Your task to perform on an android device: Open Amazon Image 0: 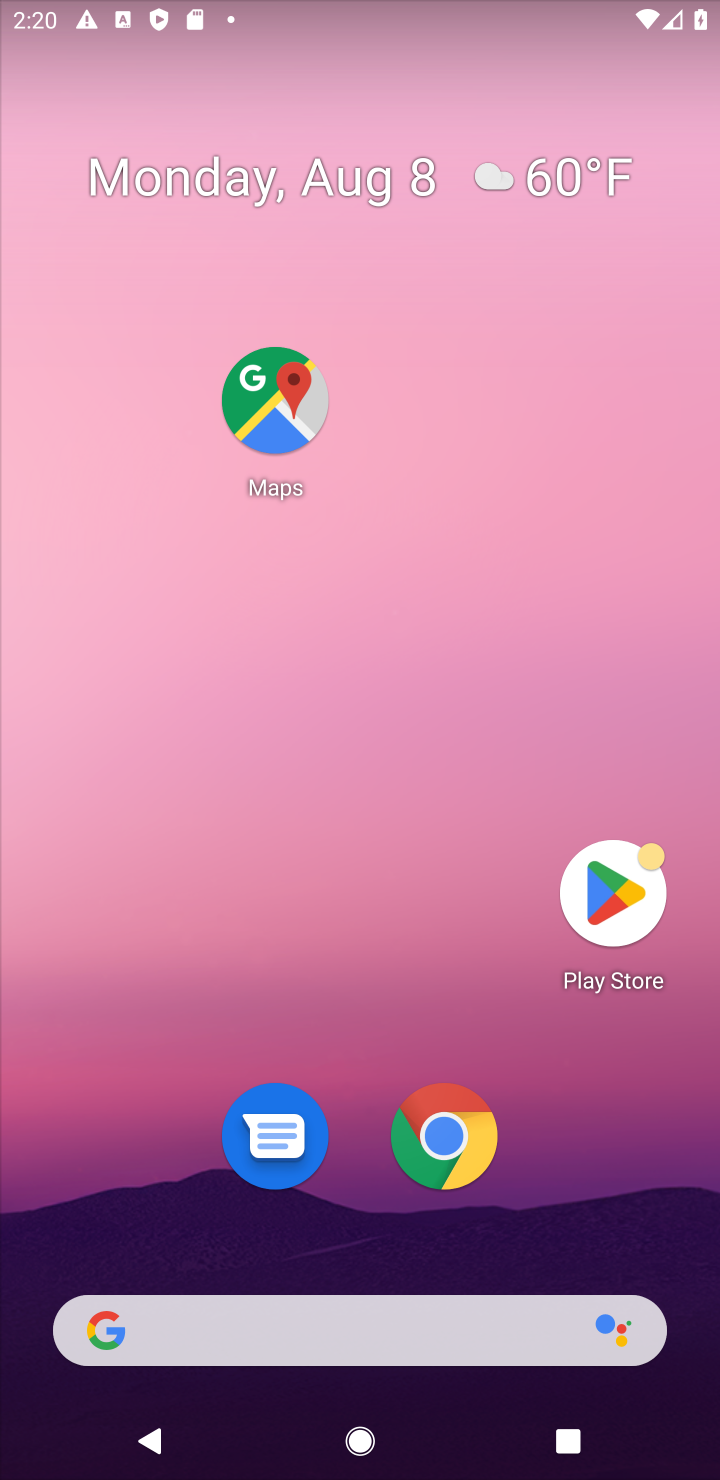
Step 0: click (170, 1339)
Your task to perform on an android device: Open Amazon Image 1: 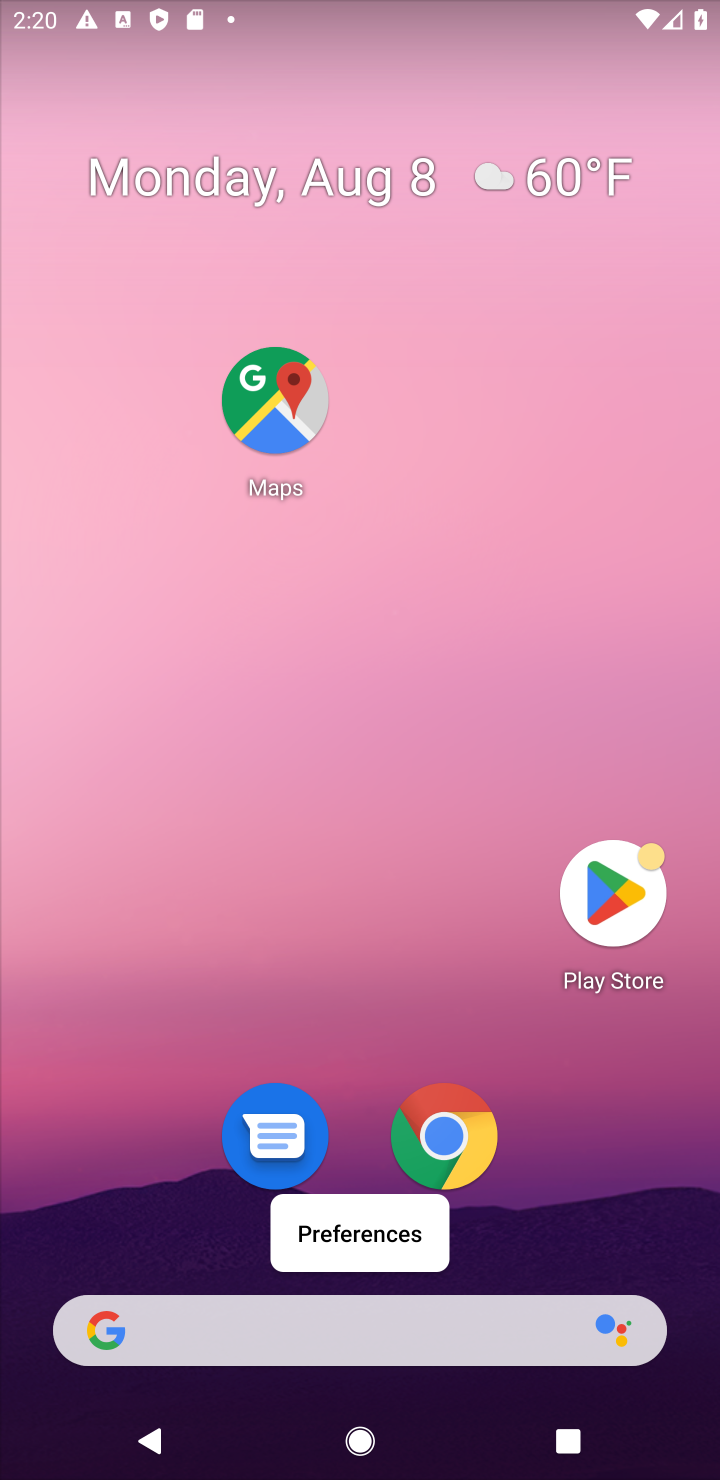
Step 1: click (170, 1339)
Your task to perform on an android device: Open Amazon Image 2: 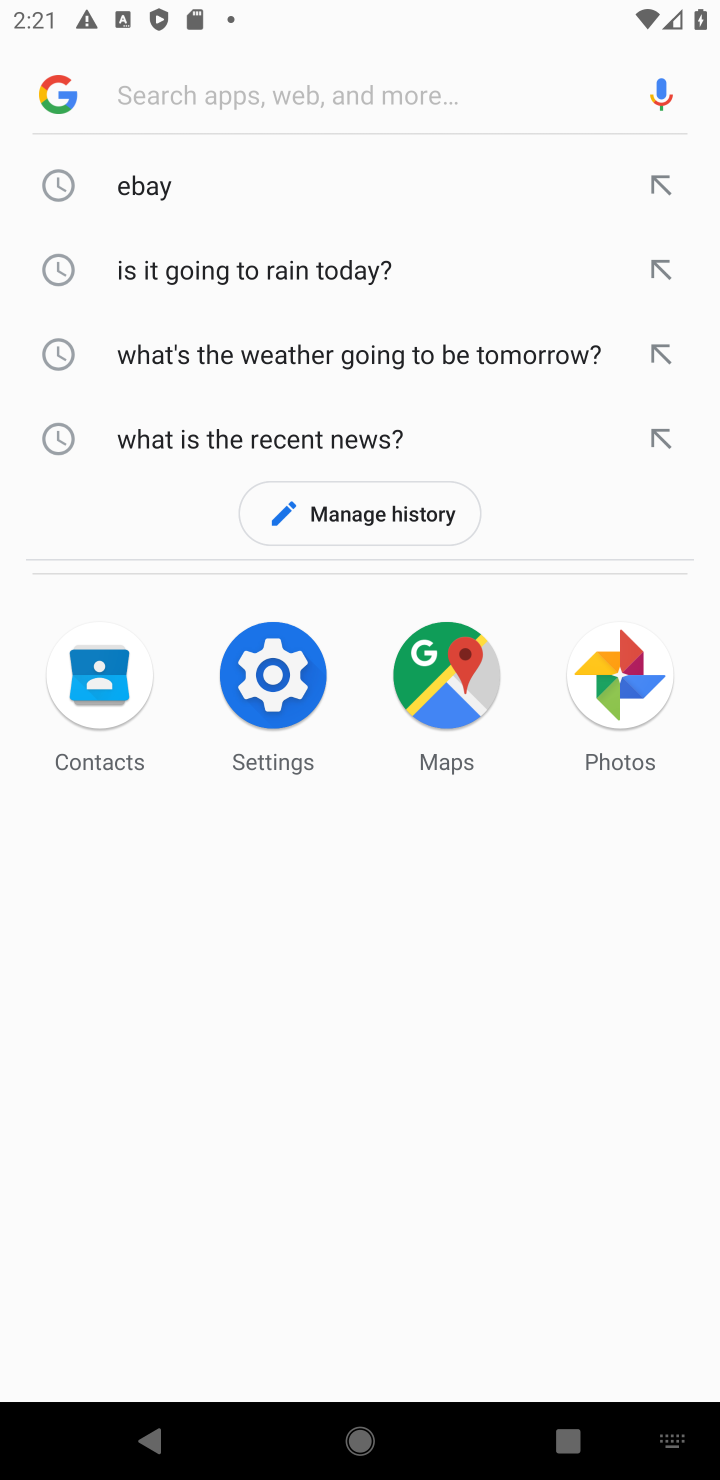
Step 2: type "Amazon"
Your task to perform on an android device: Open Amazon Image 3: 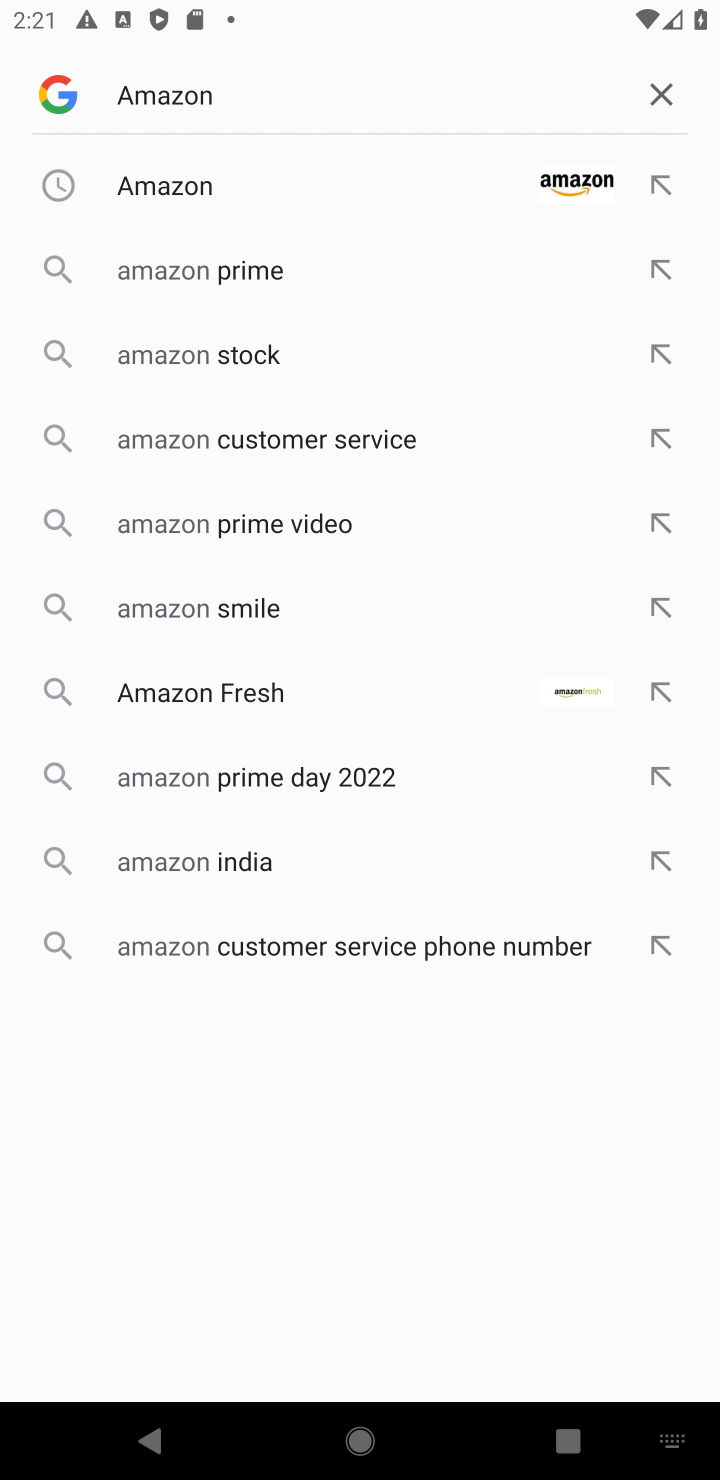
Step 3: click (163, 185)
Your task to perform on an android device: Open Amazon Image 4: 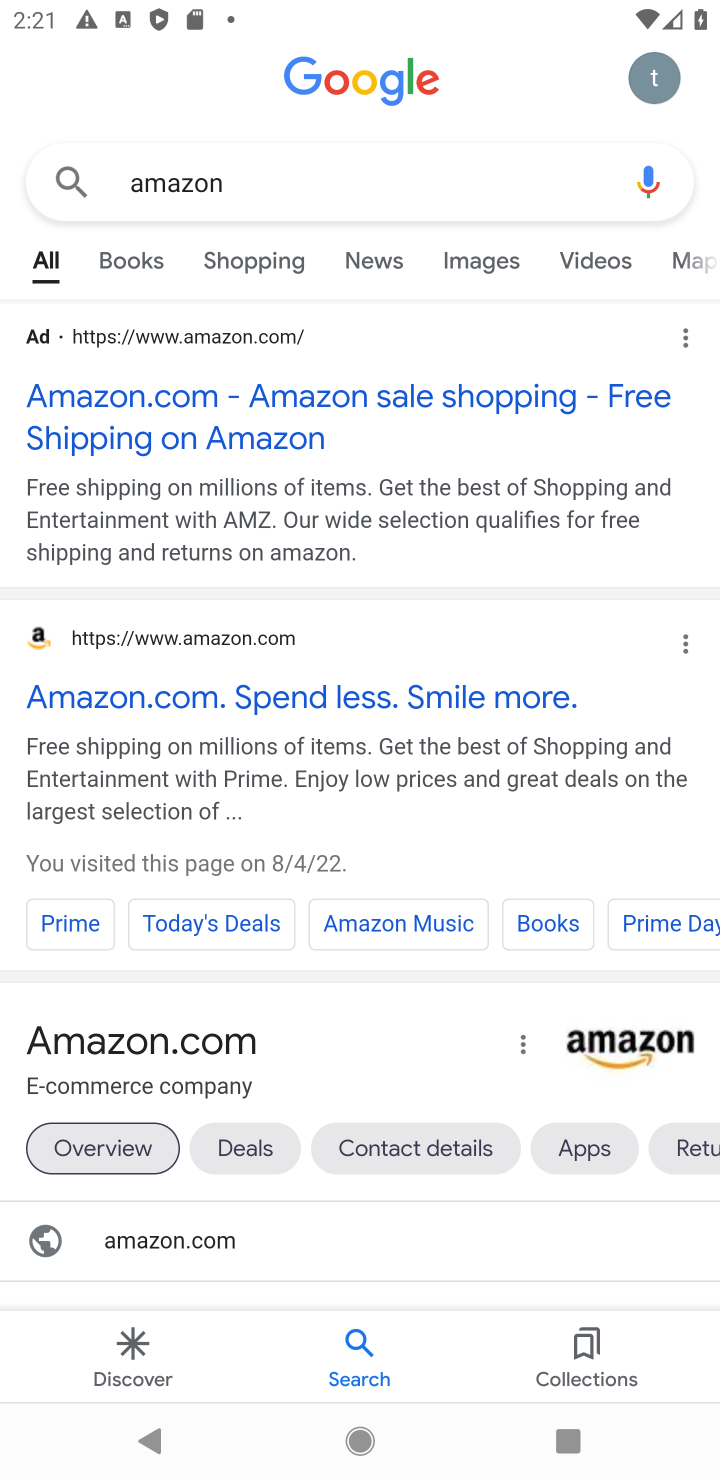
Step 4: task complete